Your task to perform on an android device: turn smart compose on in the gmail app Image 0: 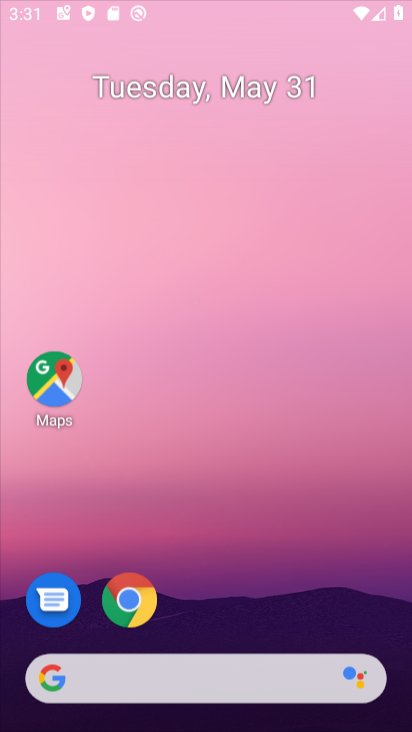
Step 0: press home button
Your task to perform on an android device: turn smart compose on in the gmail app Image 1: 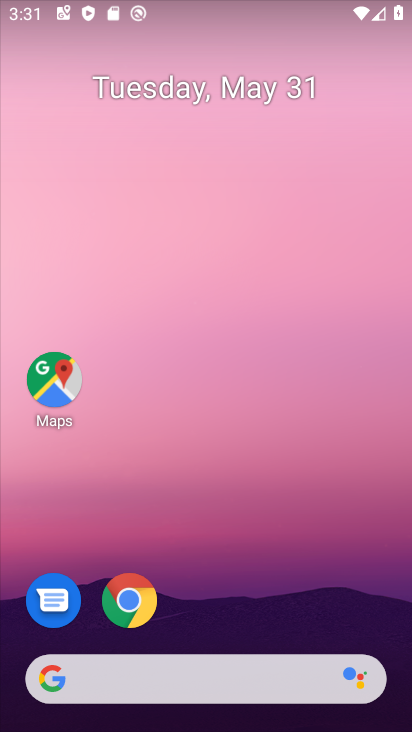
Step 1: drag from (218, 630) to (273, 102)
Your task to perform on an android device: turn smart compose on in the gmail app Image 2: 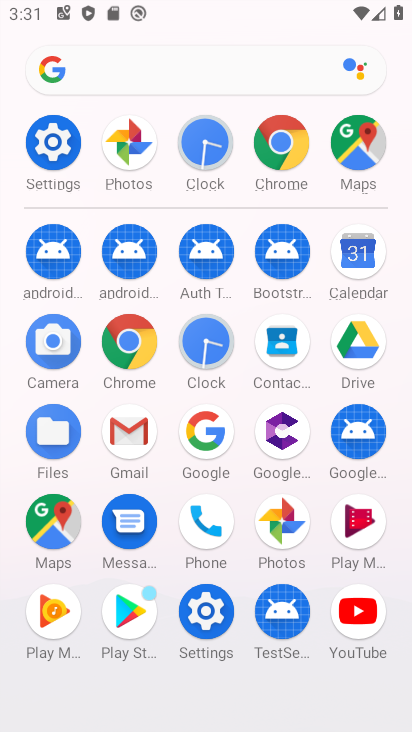
Step 2: click (133, 427)
Your task to perform on an android device: turn smart compose on in the gmail app Image 3: 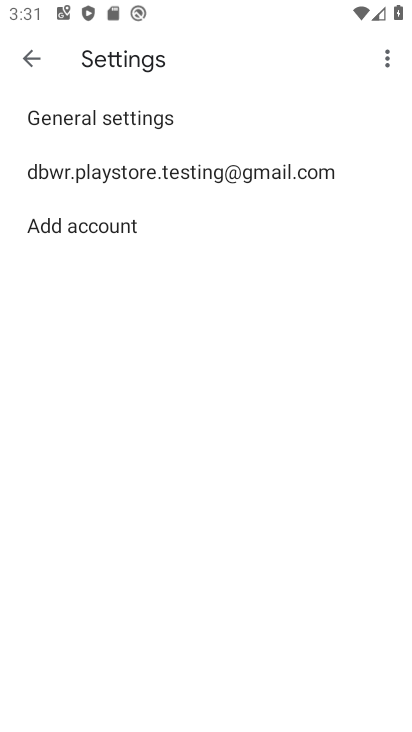
Step 3: click (136, 157)
Your task to perform on an android device: turn smart compose on in the gmail app Image 4: 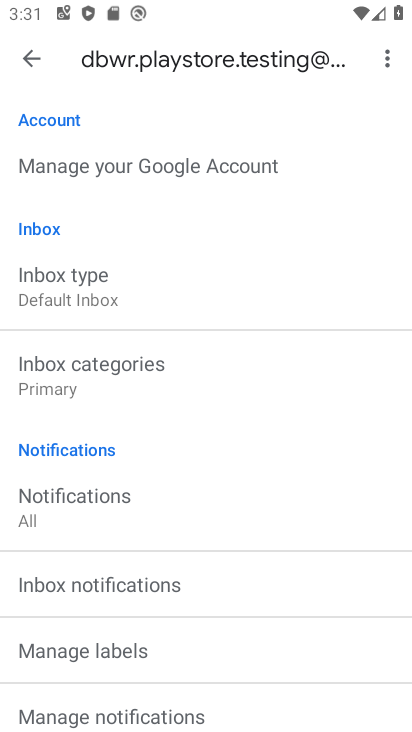
Step 4: task complete